Your task to perform on an android device: Go to location settings Image 0: 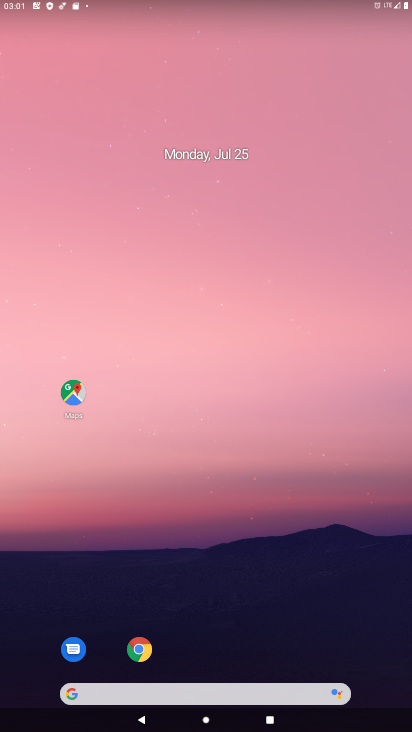
Step 0: drag from (361, 648) to (331, 142)
Your task to perform on an android device: Go to location settings Image 1: 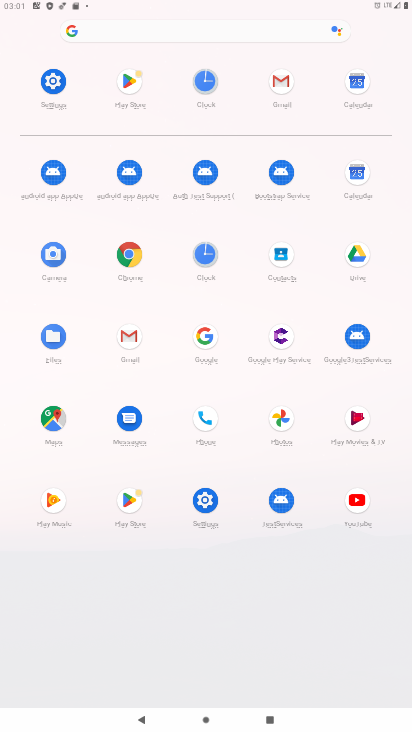
Step 1: click (205, 500)
Your task to perform on an android device: Go to location settings Image 2: 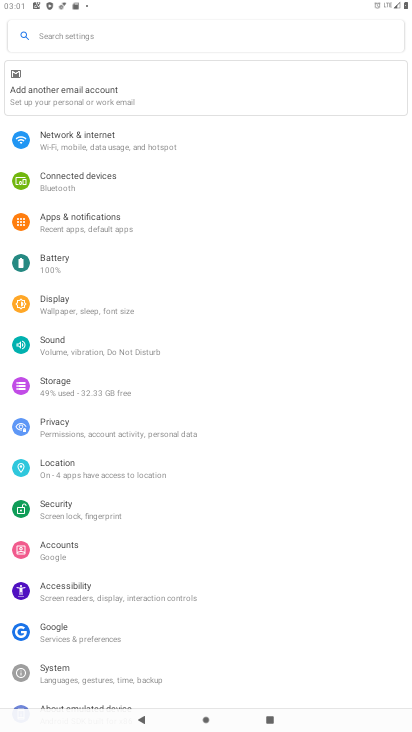
Step 2: click (59, 462)
Your task to perform on an android device: Go to location settings Image 3: 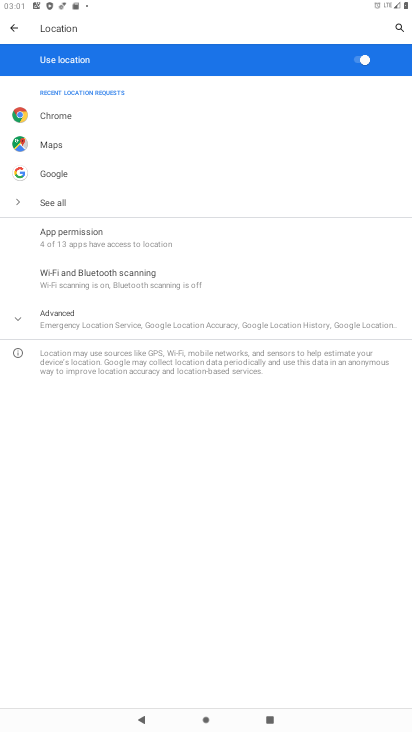
Step 3: click (17, 321)
Your task to perform on an android device: Go to location settings Image 4: 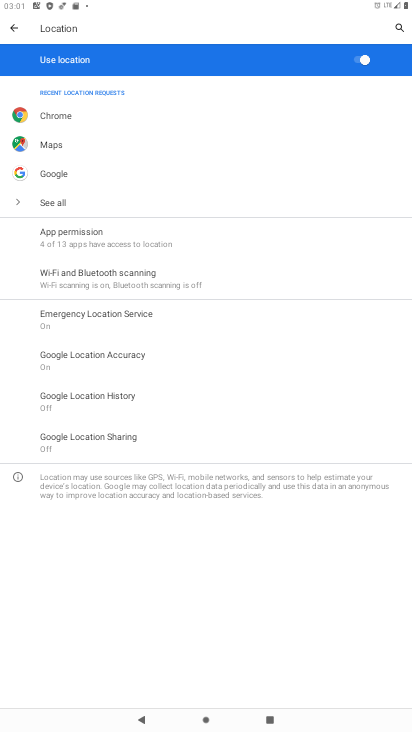
Step 4: task complete